Your task to perform on an android device: Go to ESPN.com Image 0: 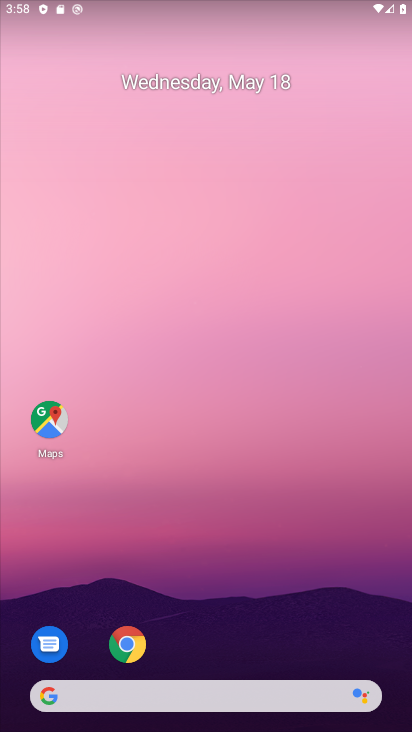
Step 0: drag from (187, 682) to (114, 73)
Your task to perform on an android device: Go to ESPN.com Image 1: 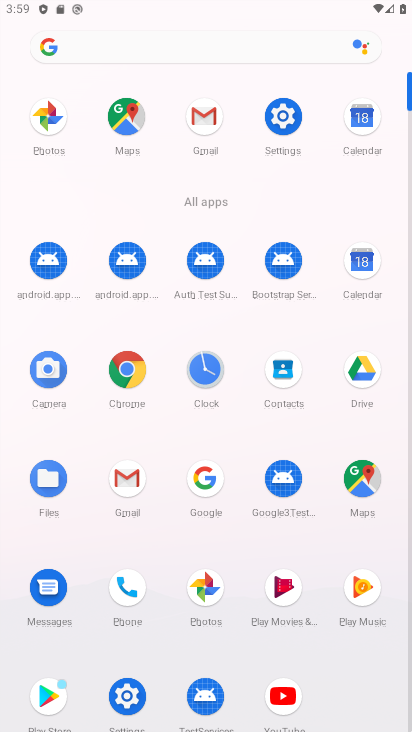
Step 1: click (128, 369)
Your task to perform on an android device: Go to ESPN.com Image 2: 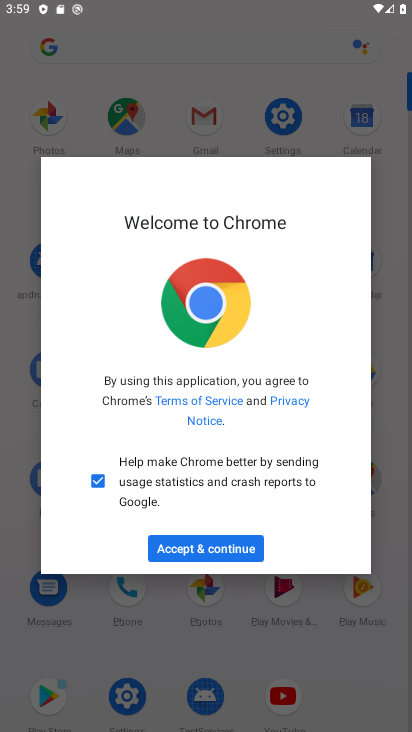
Step 2: click (242, 552)
Your task to perform on an android device: Go to ESPN.com Image 3: 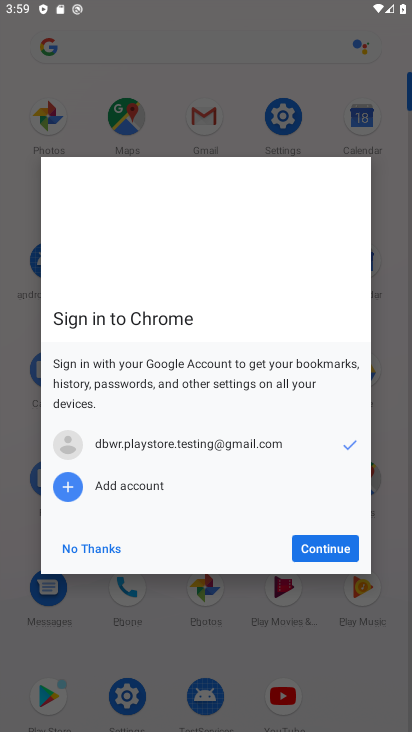
Step 3: click (351, 552)
Your task to perform on an android device: Go to ESPN.com Image 4: 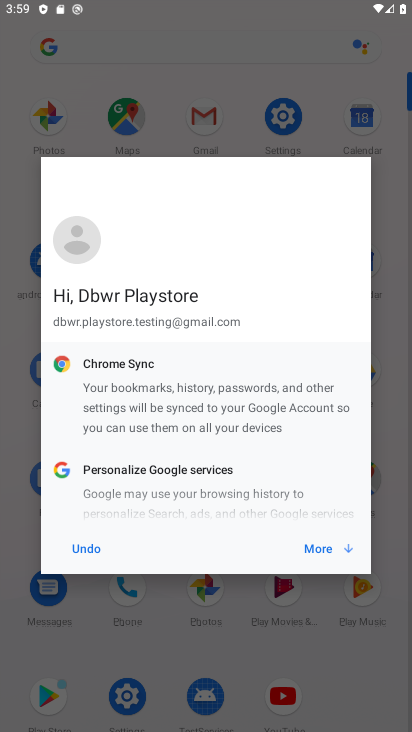
Step 4: click (338, 552)
Your task to perform on an android device: Go to ESPN.com Image 5: 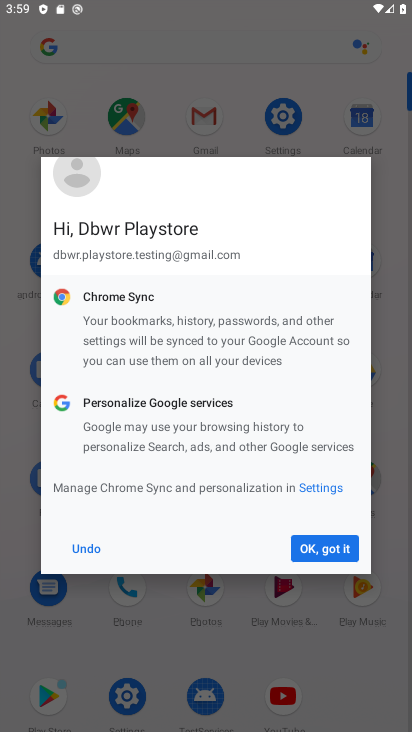
Step 5: click (333, 552)
Your task to perform on an android device: Go to ESPN.com Image 6: 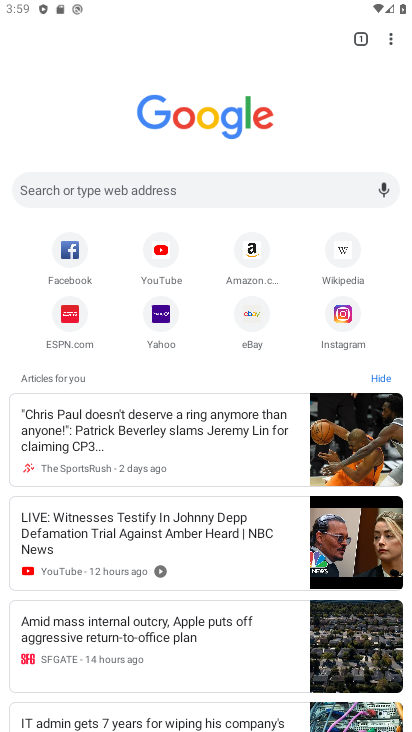
Step 6: click (71, 317)
Your task to perform on an android device: Go to ESPN.com Image 7: 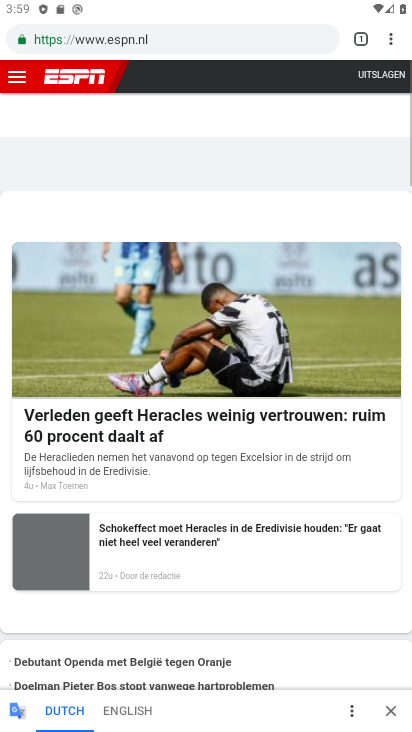
Step 7: task complete